Your task to perform on an android device: see creations saved in the google photos Image 0: 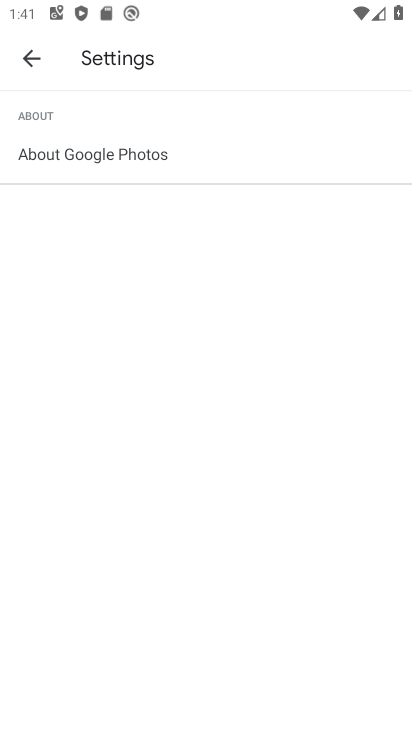
Step 0: press home button
Your task to perform on an android device: see creations saved in the google photos Image 1: 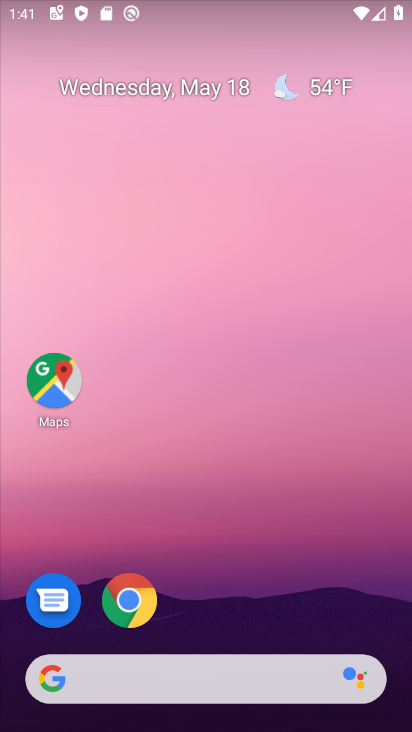
Step 1: drag from (189, 610) to (210, 176)
Your task to perform on an android device: see creations saved in the google photos Image 2: 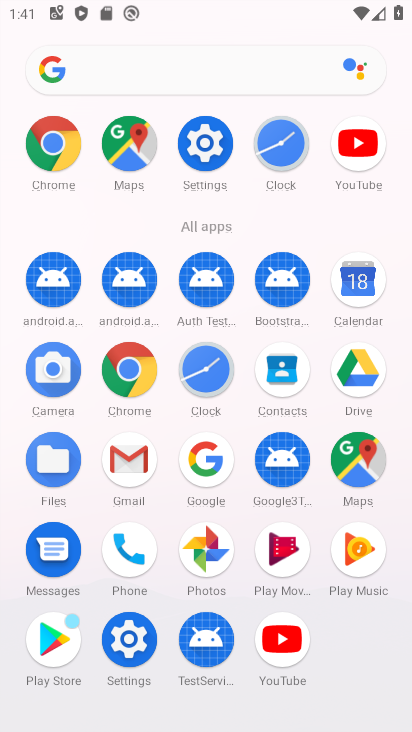
Step 2: click (195, 565)
Your task to perform on an android device: see creations saved in the google photos Image 3: 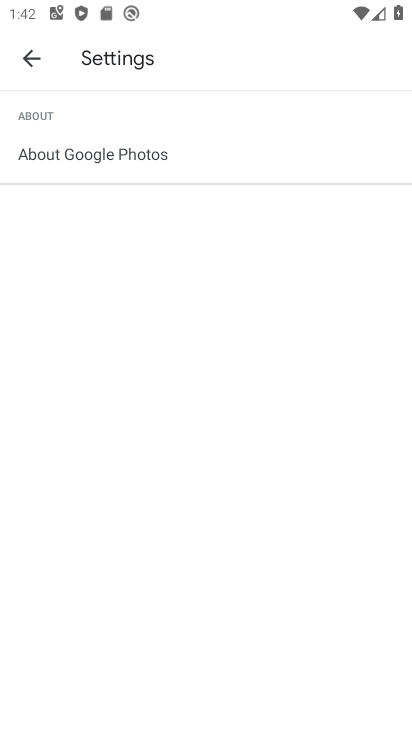
Step 3: click (20, 69)
Your task to perform on an android device: see creations saved in the google photos Image 4: 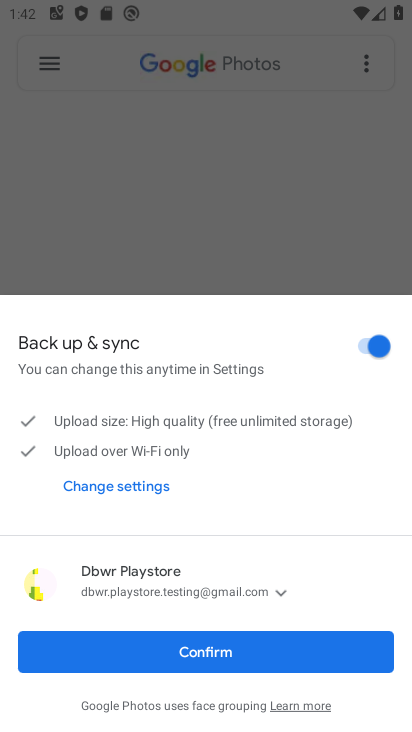
Step 4: click (189, 647)
Your task to perform on an android device: see creations saved in the google photos Image 5: 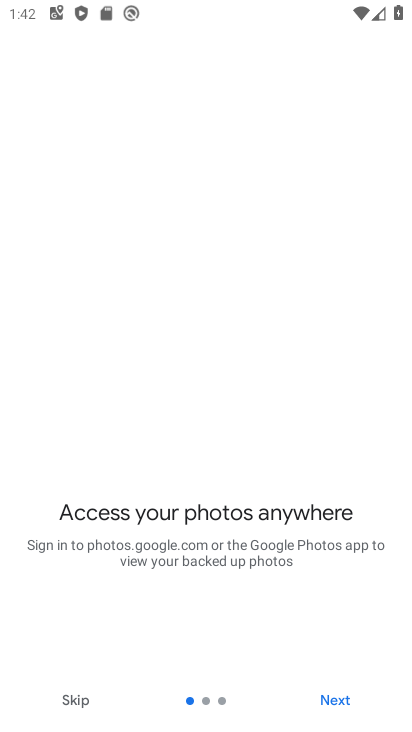
Step 5: click (333, 693)
Your task to perform on an android device: see creations saved in the google photos Image 6: 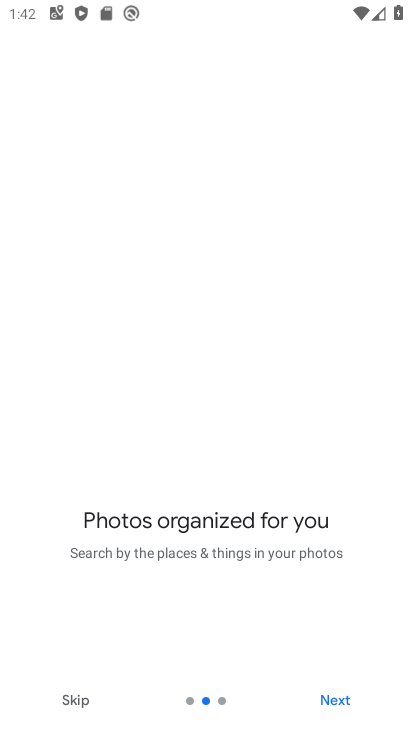
Step 6: click (333, 693)
Your task to perform on an android device: see creations saved in the google photos Image 7: 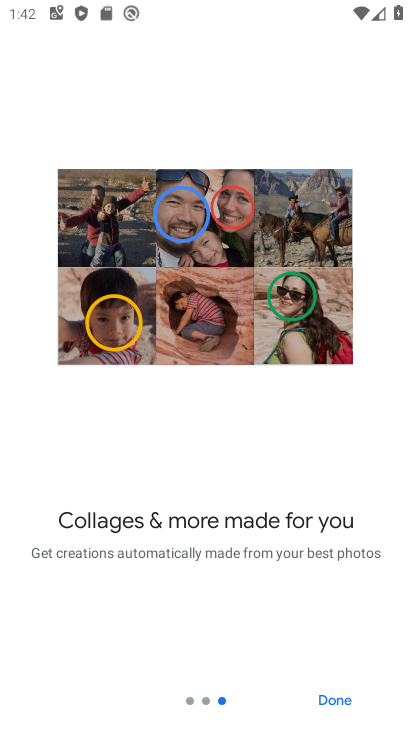
Step 7: click (333, 693)
Your task to perform on an android device: see creations saved in the google photos Image 8: 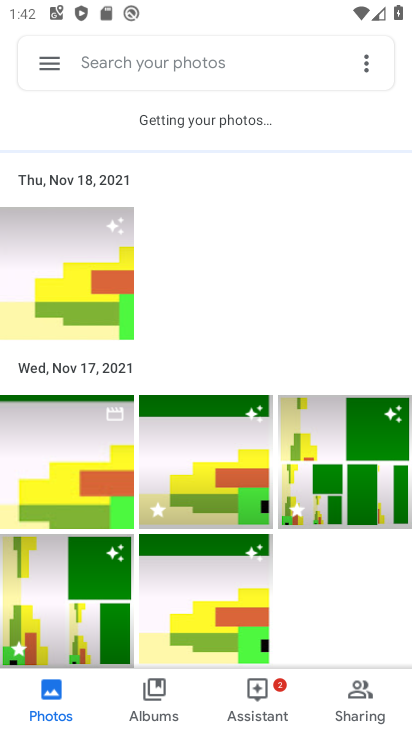
Step 8: click (351, 71)
Your task to perform on an android device: see creations saved in the google photos Image 9: 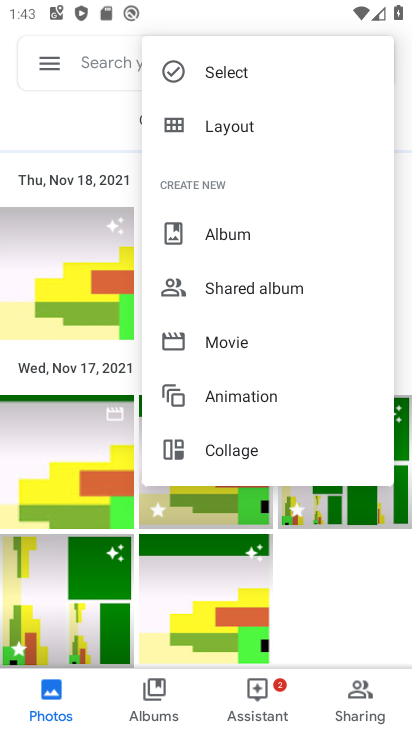
Step 9: task complete